Your task to perform on an android device: Go to accessibility settings Image 0: 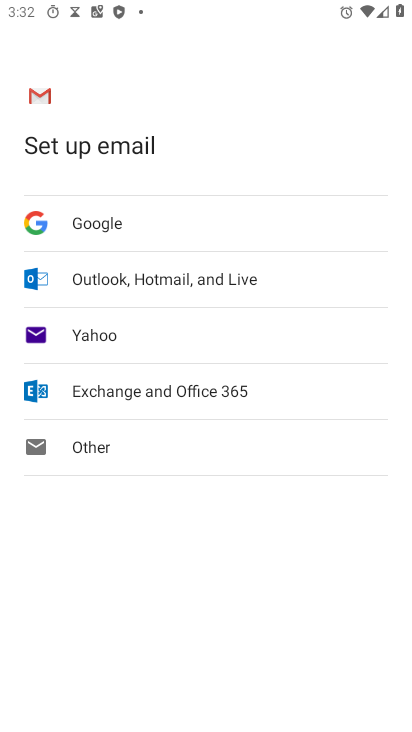
Step 0: press home button
Your task to perform on an android device: Go to accessibility settings Image 1: 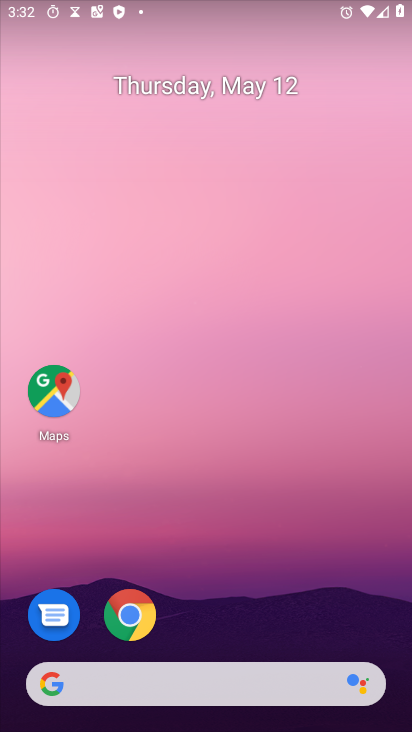
Step 1: drag from (5, 390) to (262, 115)
Your task to perform on an android device: Go to accessibility settings Image 2: 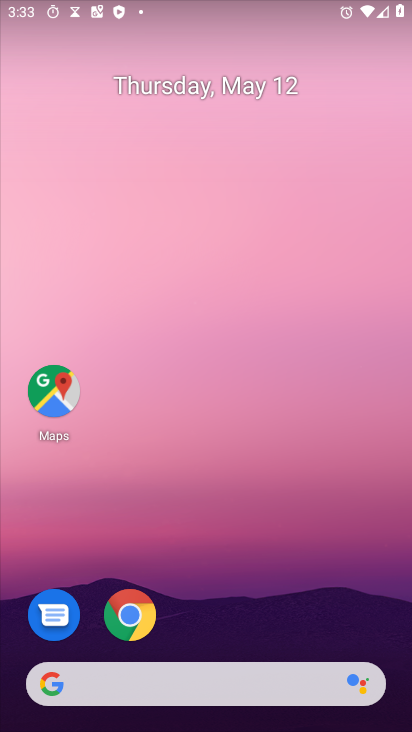
Step 2: drag from (17, 727) to (289, 123)
Your task to perform on an android device: Go to accessibility settings Image 3: 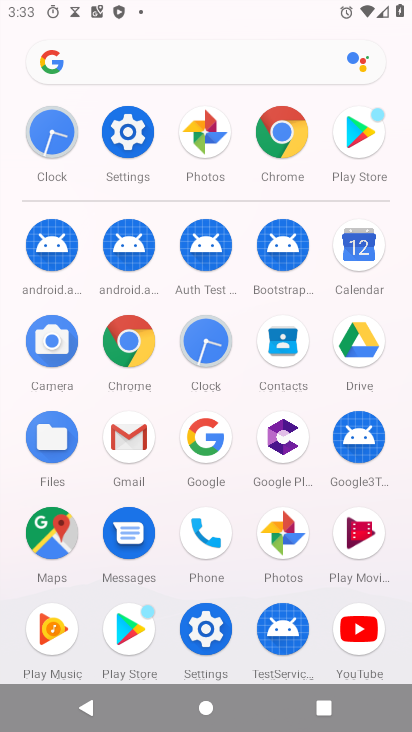
Step 3: click (121, 140)
Your task to perform on an android device: Go to accessibility settings Image 4: 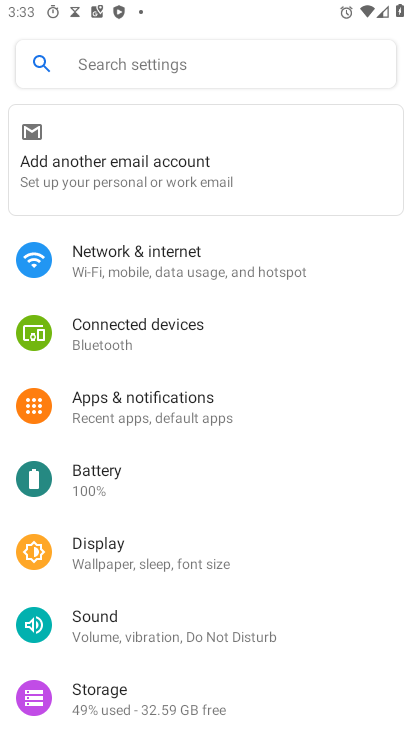
Step 4: drag from (132, 674) to (355, 170)
Your task to perform on an android device: Go to accessibility settings Image 5: 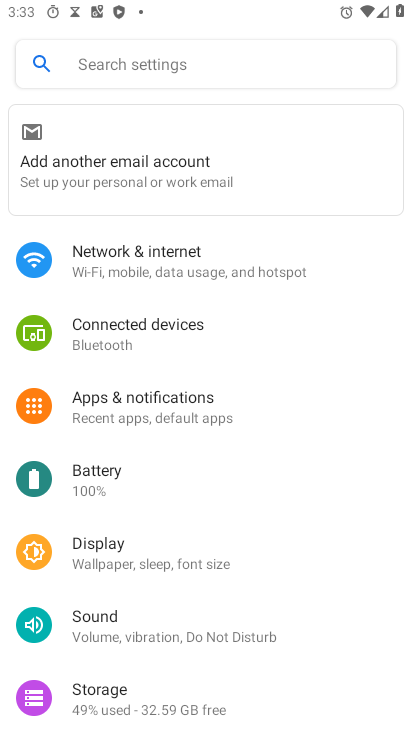
Step 5: drag from (69, 590) to (405, 203)
Your task to perform on an android device: Go to accessibility settings Image 6: 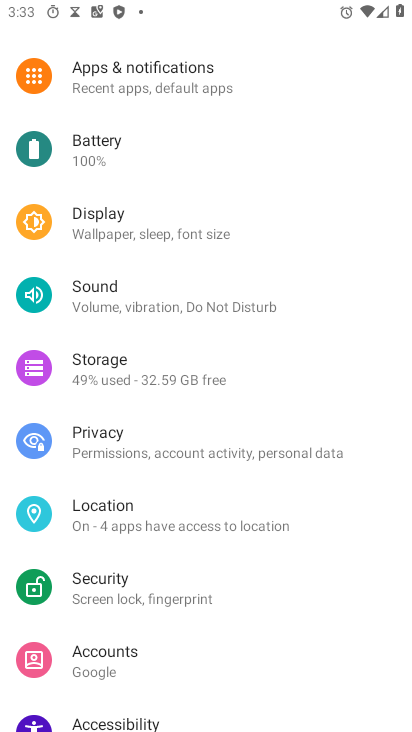
Step 6: click (67, 712)
Your task to perform on an android device: Go to accessibility settings Image 7: 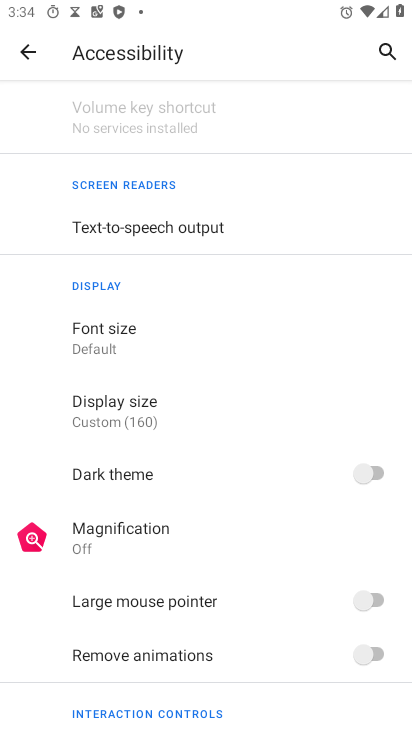
Step 7: task complete